Your task to perform on an android device: Search for vegetarian restaurants on Maps Image 0: 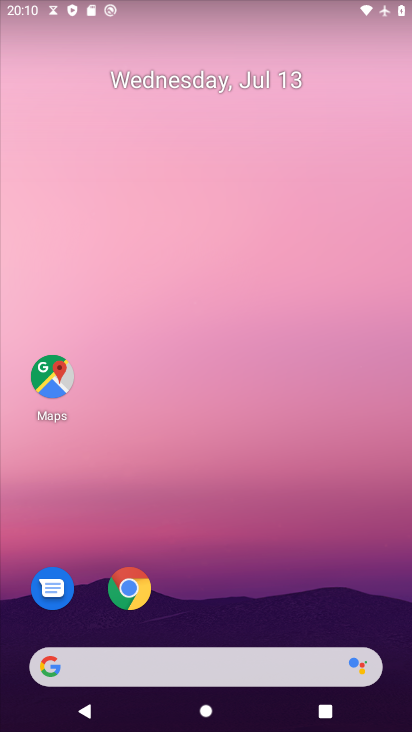
Step 0: click (60, 368)
Your task to perform on an android device: Search for vegetarian restaurants on Maps Image 1: 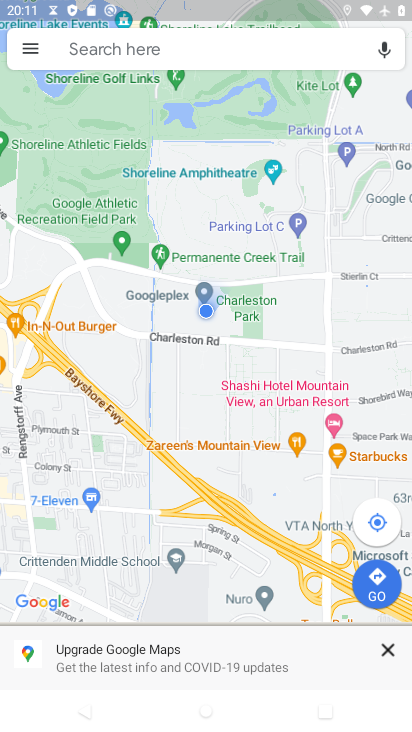
Step 1: click (281, 41)
Your task to perform on an android device: Search for vegetarian restaurants on Maps Image 2: 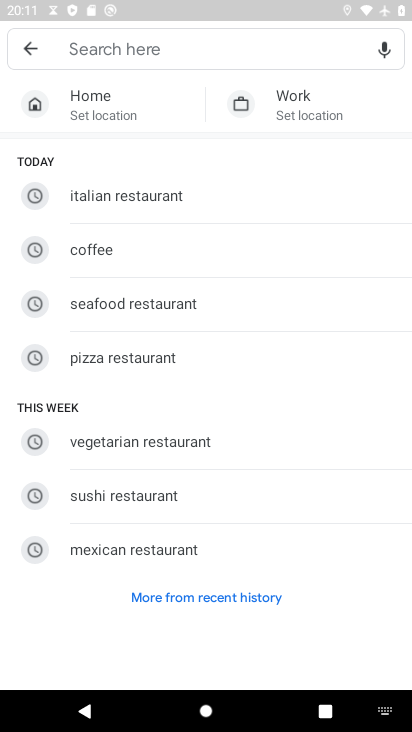
Step 2: type "vegetarian restaurants  "
Your task to perform on an android device: Search for vegetarian restaurants on Maps Image 3: 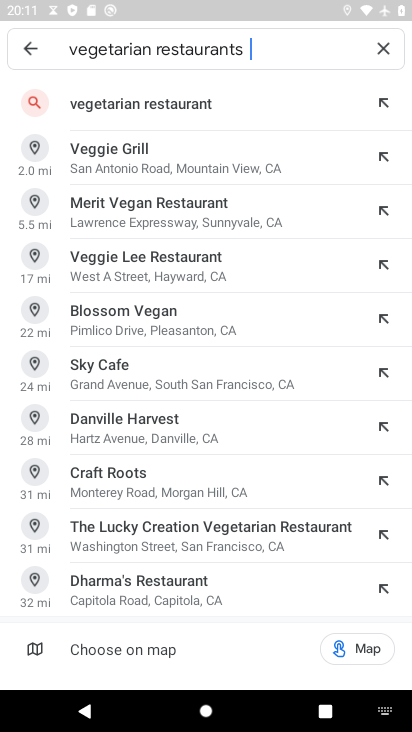
Step 3: click (128, 84)
Your task to perform on an android device: Search for vegetarian restaurants on Maps Image 4: 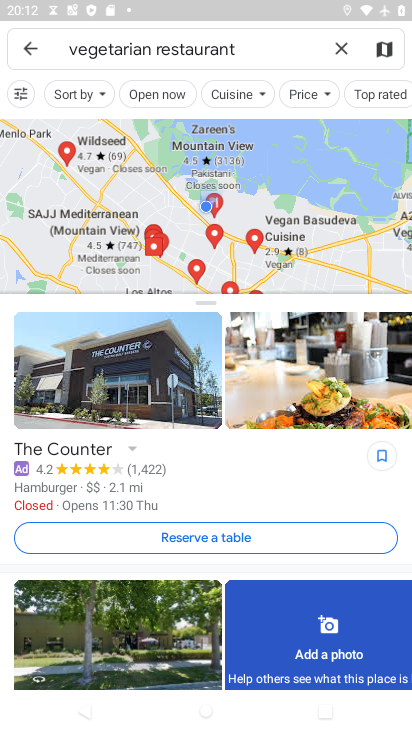
Step 4: task complete